Your task to perform on an android device: change text size in settings app Image 0: 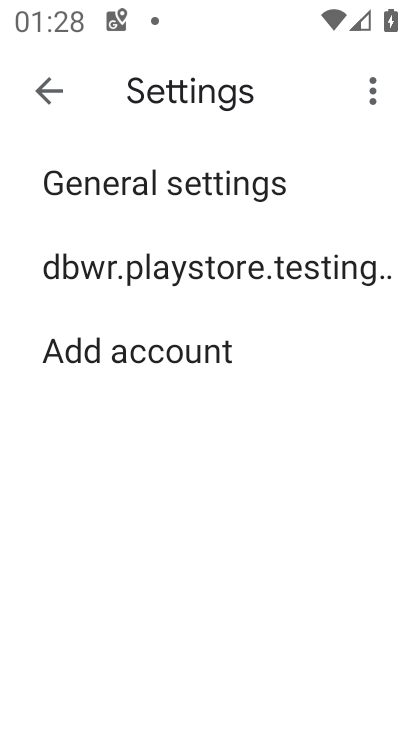
Step 0: press home button
Your task to perform on an android device: change text size in settings app Image 1: 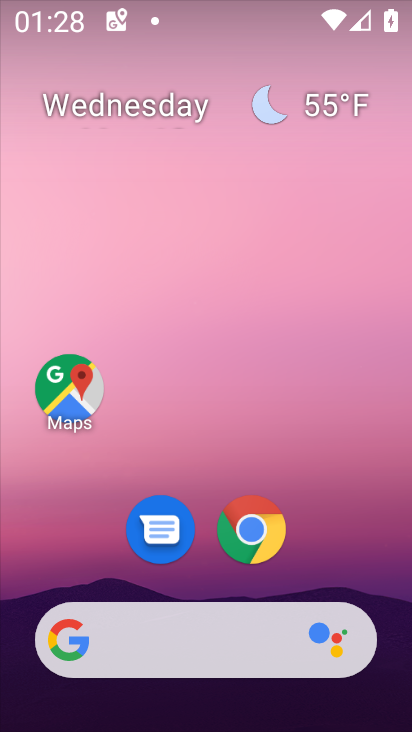
Step 1: drag from (214, 726) to (216, 215)
Your task to perform on an android device: change text size in settings app Image 2: 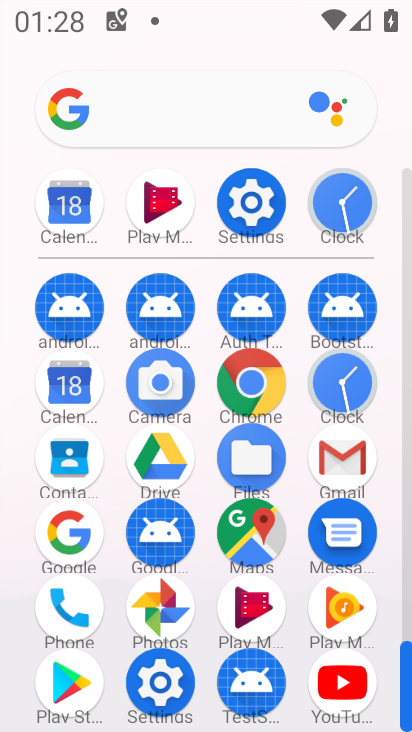
Step 2: click (253, 213)
Your task to perform on an android device: change text size in settings app Image 3: 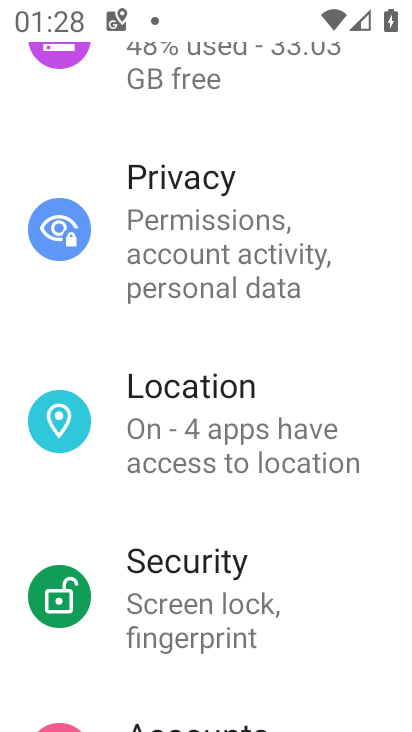
Step 3: drag from (192, 691) to (189, 636)
Your task to perform on an android device: change text size in settings app Image 4: 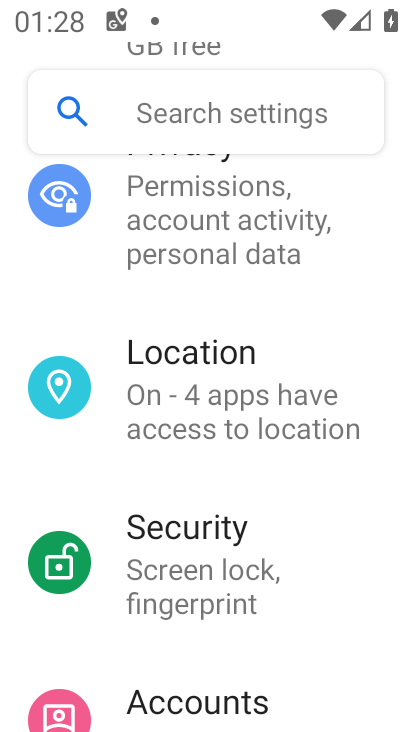
Step 4: drag from (318, 164) to (300, 678)
Your task to perform on an android device: change text size in settings app Image 5: 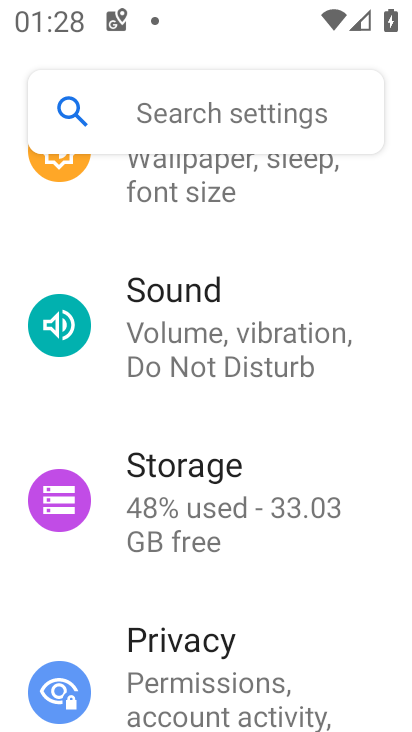
Step 5: drag from (268, 237) to (248, 661)
Your task to perform on an android device: change text size in settings app Image 6: 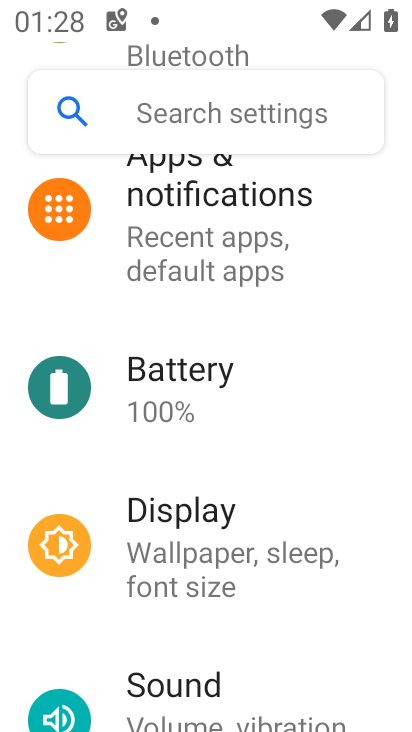
Step 6: drag from (272, 189) to (268, 573)
Your task to perform on an android device: change text size in settings app Image 7: 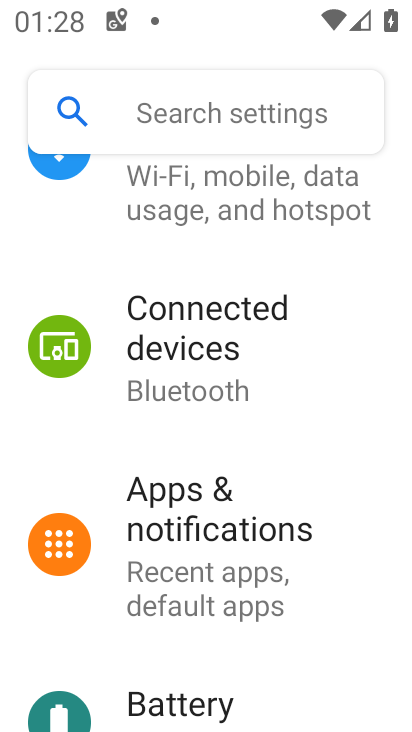
Step 7: drag from (233, 200) to (227, 588)
Your task to perform on an android device: change text size in settings app Image 8: 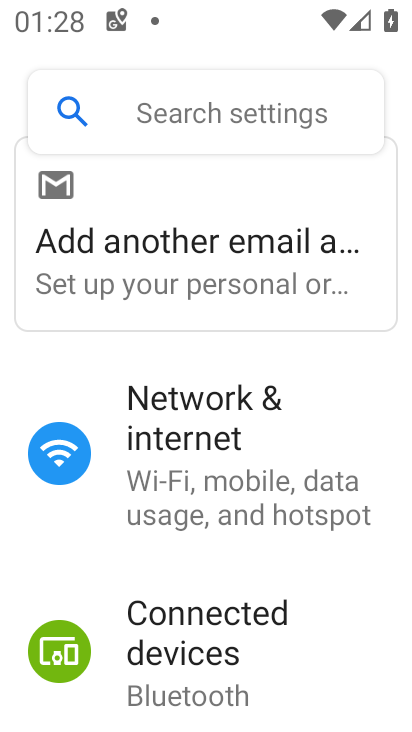
Step 8: drag from (211, 671) to (233, 332)
Your task to perform on an android device: change text size in settings app Image 9: 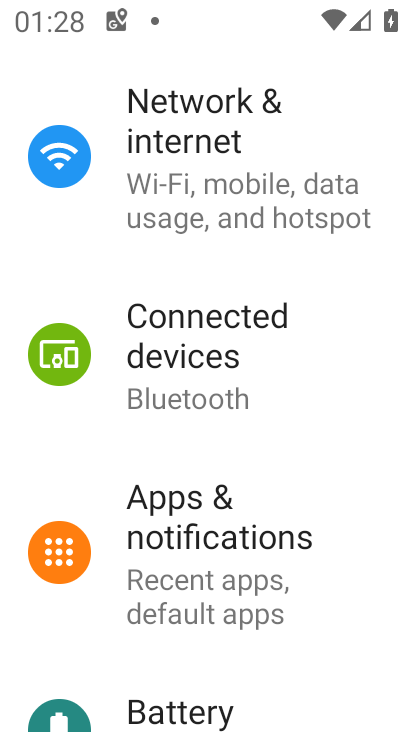
Step 9: drag from (255, 698) to (274, 297)
Your task to perform on an android device: change text size in settings app Image 10: 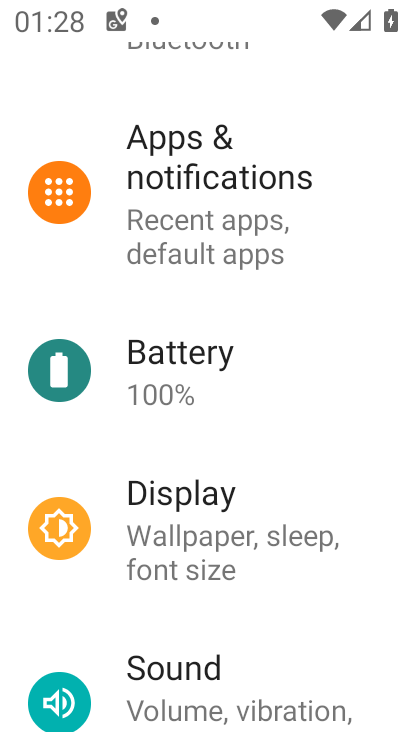
Step 10: click (205, 529)
Your task to perform on an android device: change text size in settings app Image 11: 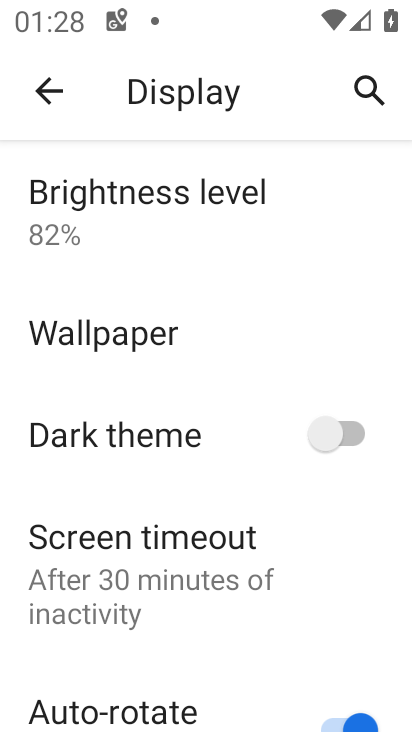
Step 11: drag from (184, 667) to (193, 317)
Your task to perform on an android device: change text size in settings app Image 12: 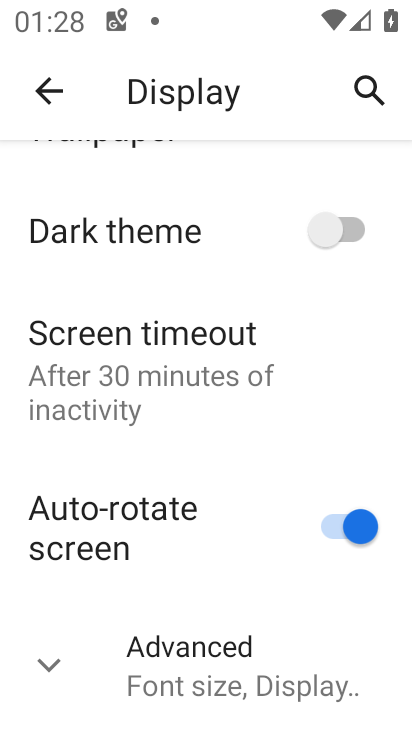
Step 12: click (200, 658)
Your task to perform on an android device: change text size in settings app Image 13: 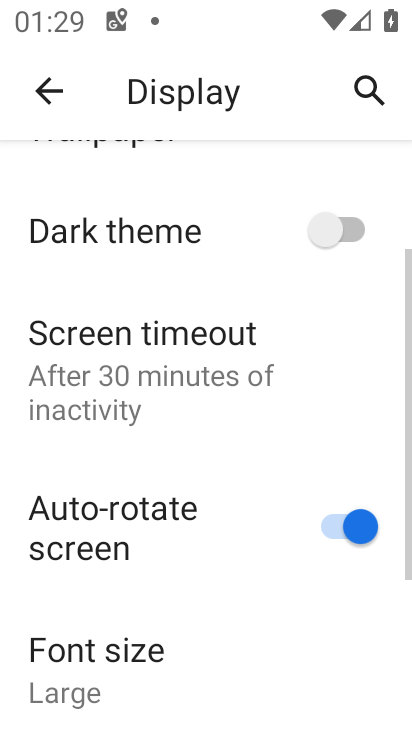
Step 13: drag from (208, 682) to (224, 375)
Your task to perform on an android device: change text size in settings app Image 14: 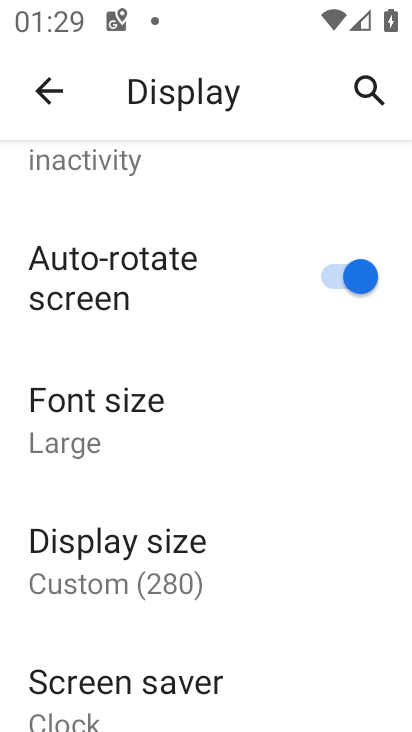
Step 14: click (98, 420)
Your task to perform on an android device: change text size in settings app Image 15: 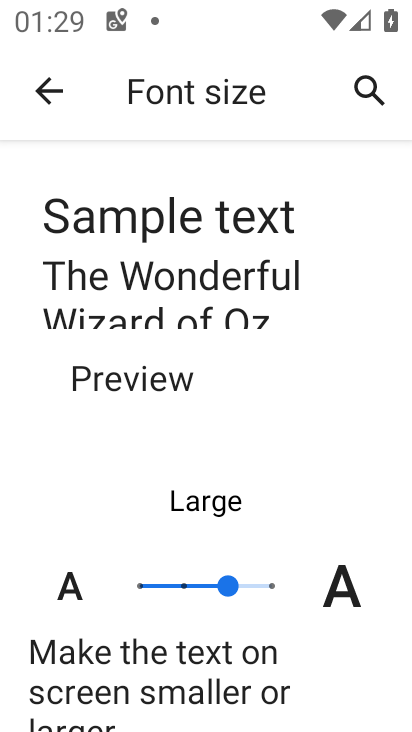
Step 15: click (186, 583)
Your task to perform on an android device: change text size in settings app Image 16: 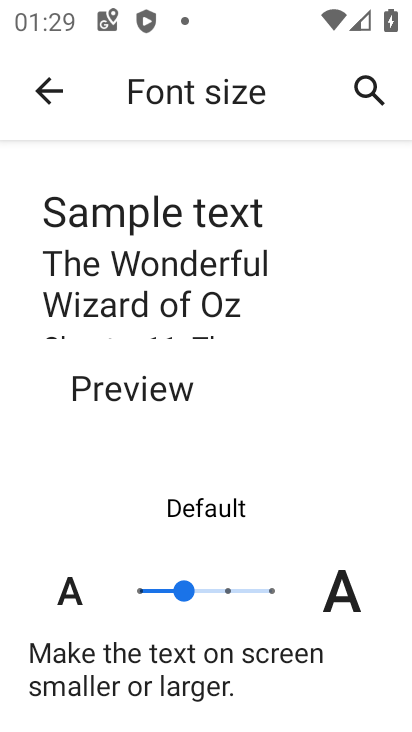
Step 16: task complete